Your task to perform on an android device: Go to Yahoo.com Image 0: 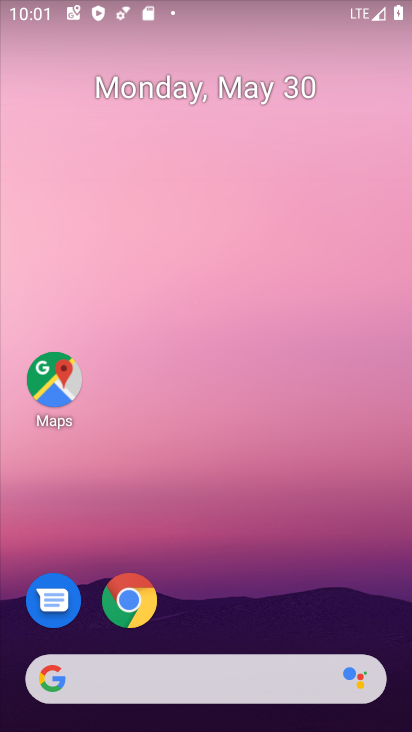
Step 0: click (167, 684)
Your task to perform on an android device: Go to Yahoo.com Image 1: 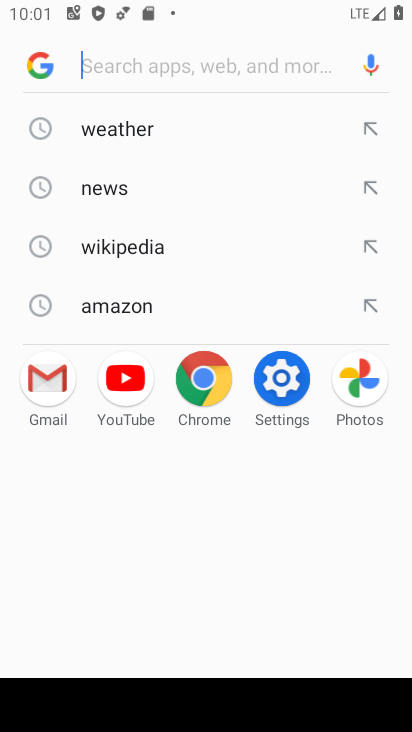
Step 1: type "Yahoo.com"
Your task to perform on an android device: Go to Yahoo.com Image 2: 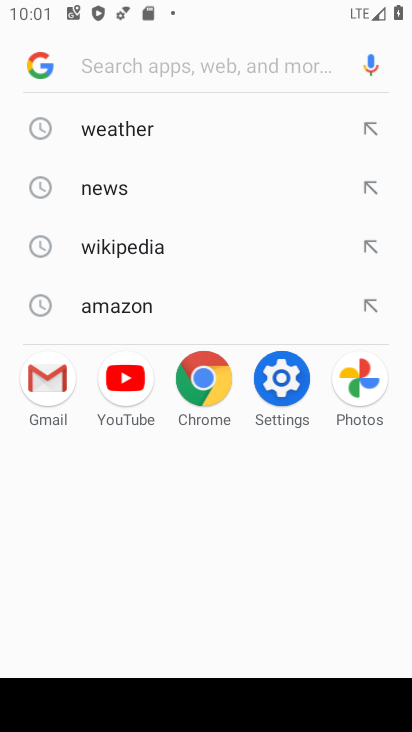
Step 2: click (182, 65)
Your task to perform on an android device: Go to Yahoo.com Image 3: 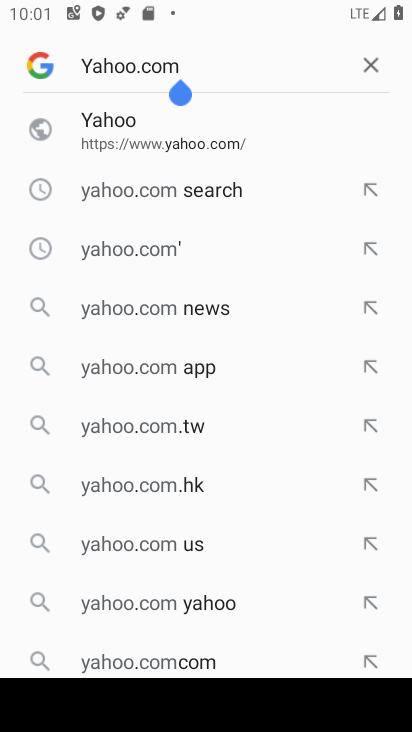
Step 3: click (100, 140)
Your task to perform on an android device: Go to Yahoo.com Image 4: 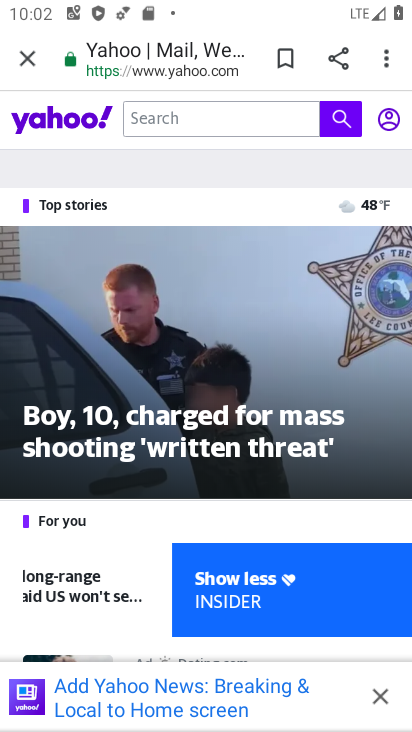
Step 4: task complete